Your task to perform on an android device: turn off notifications settings in the gmail app Image 0: 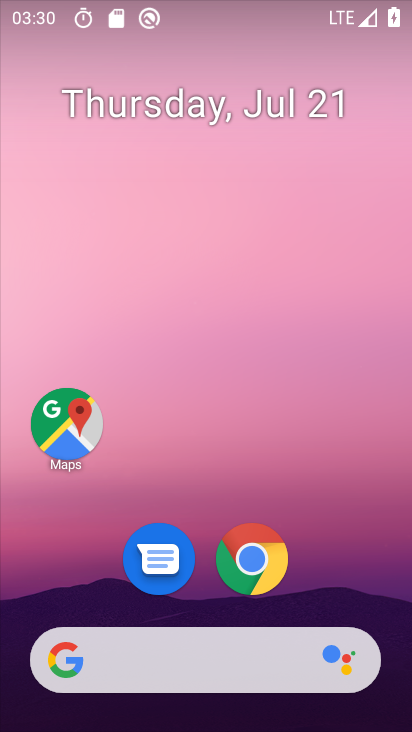
Step 0: drag from (344, 574) to (351, 56)
Your task to perform on an android device: turn off notifications settings in the gmail app Image 1: 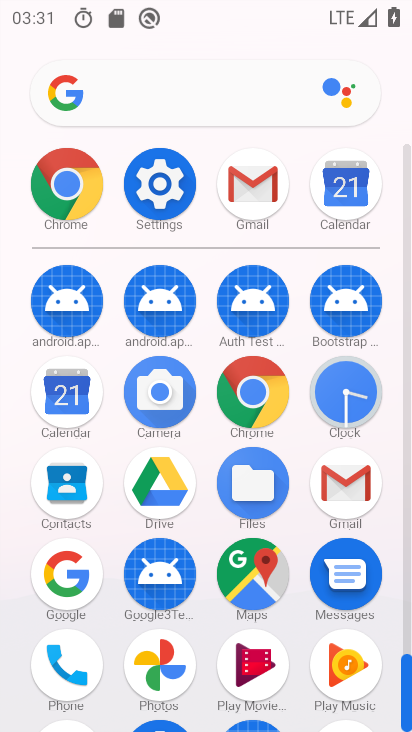
Step 1: click (343, 485)
Your task to perform on an android device: turn off notifications settings in the gmail app Image 2: 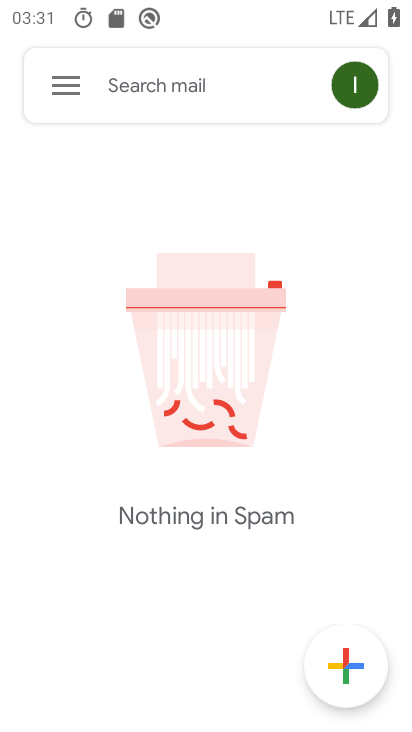
Step 2: click (68, 86)
Your task to perform on an android device: turn off notifications settings in the gmail app Image 3: 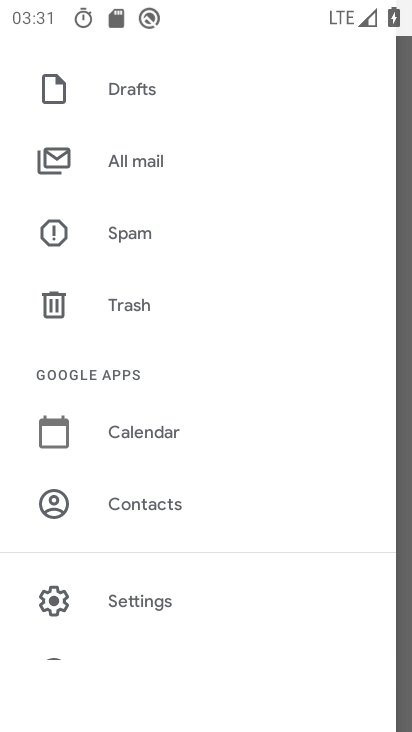
Step 3: drag from (296, 449) to (295, 375)
Your task to perform on an android device: turn off notifications settings in the gmail app Image 4: 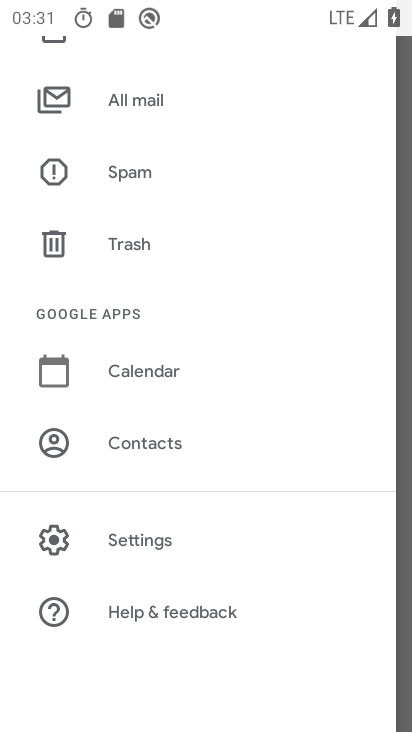
Step 4: drag from (310, 485) to (310, 405)
Your task to perform on an android device: turn off notifications settings in the gmail app Image 5: 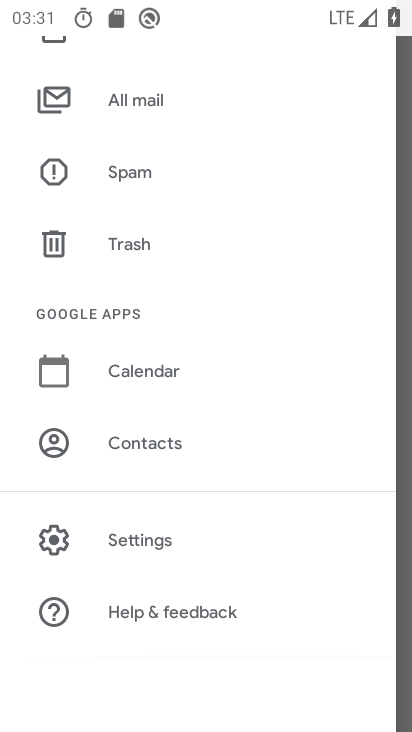
Step 5: click (255, 528)
Your task to perform on an android device: turn off notifications settings in the gmail app Image 6: 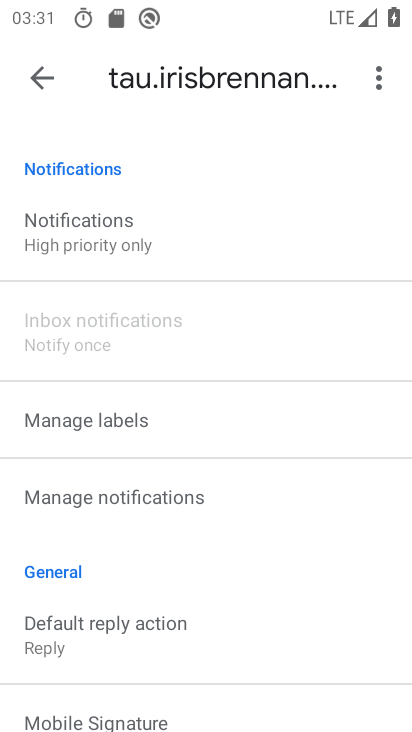
Step 6: drag from (335, 534) to (339, 425)
Your task to perform on an android device: turn off notifications settings in the gmail app Image 7: 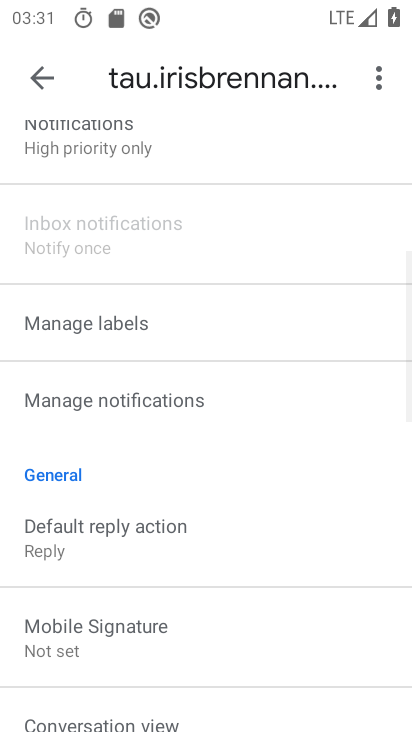
Step 7: drag from (320, 488) to (322, 414)
Your task to perform on an android device: turn off notifications settings in the gmail app Image 8: 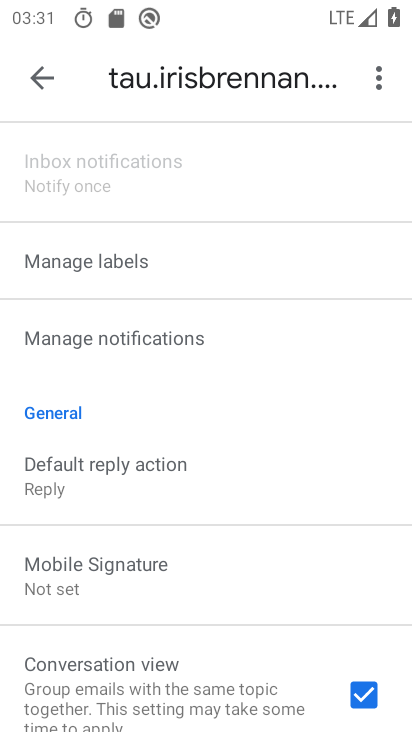
Step 8: drag from (312, 476) to (316, 410)
Your task to perform on an android device: turn off notifications settings in the gmail app Image 9: 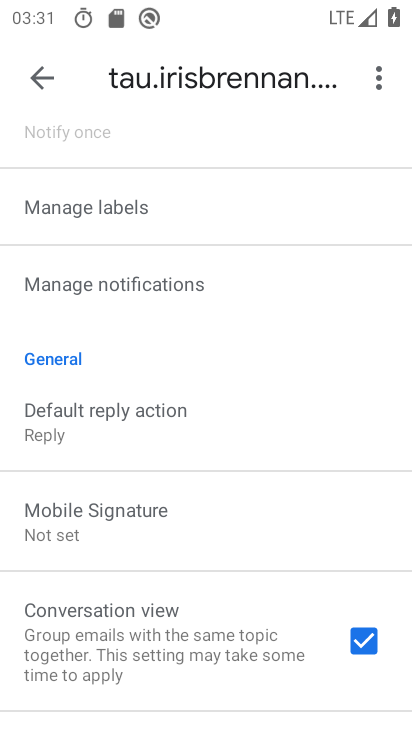
Step 9: drag from (310, 475) to (313, 371)
Your task to perform on an android device: turn off notifications settings in the gmail app Image 10: 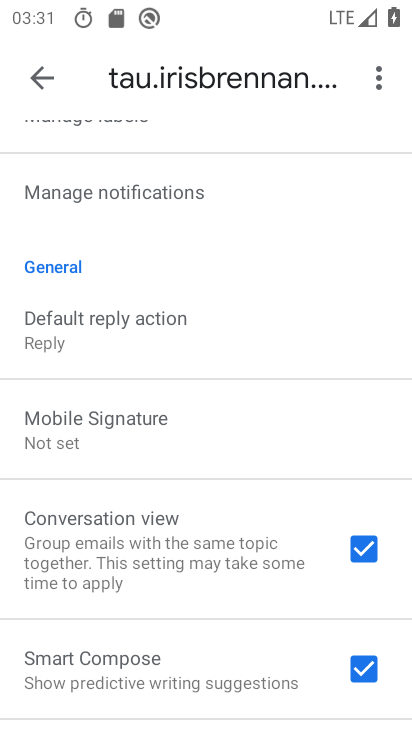
Step 10: drag from (301, 424) to (302, 364)
Your task to perform on an android device: turn off notifications settings in the gmail app Image 11: 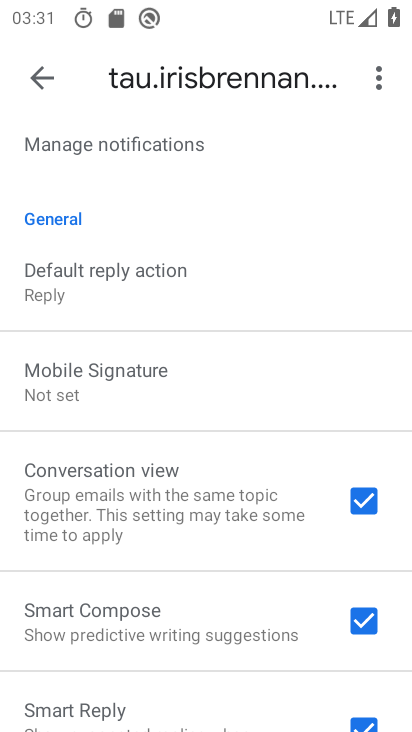
Step 11: drag from (290, 449) to (288, 360)
Your task to perform on an android device: turn off notifications settings in the gmail app Image 12: 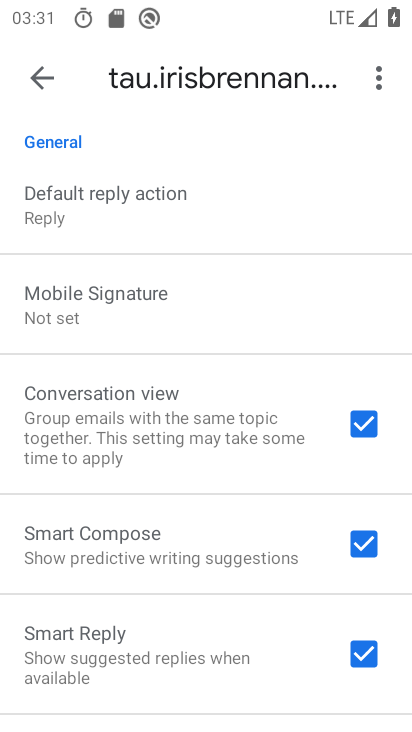
Step 12: drag from (270, 315) to (269, 391)
Your task to perform on an android device: turn off notifications settings in the gmail app Image 13: 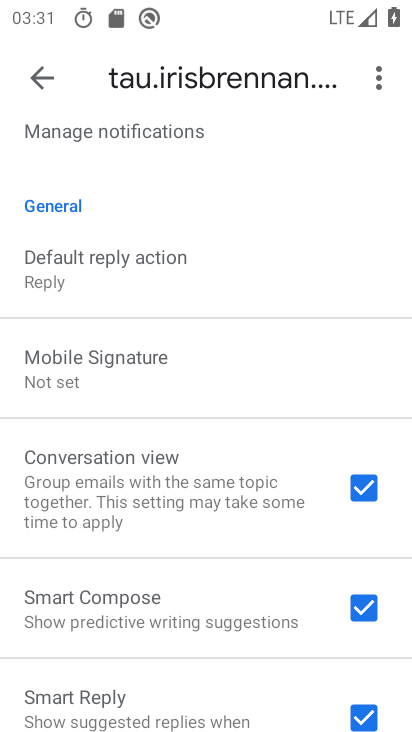
Step 13: drag from (273, 304) to (272, 392)
Your task to perform on an android device: turn off notifications settings in the gmail app Image 14: 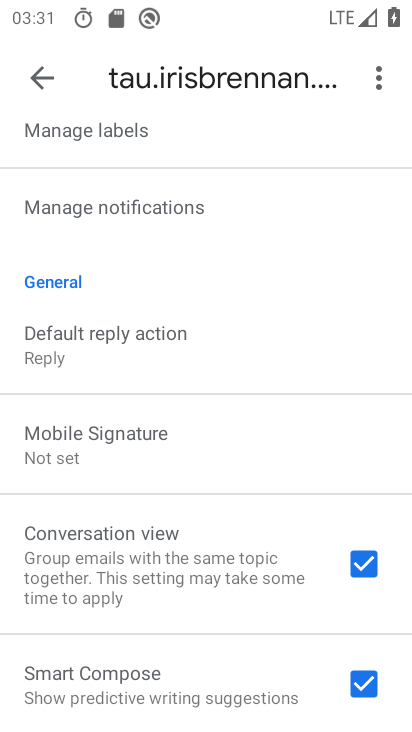
Step 14: drag from (272, 302) to (266, 378)
Your task to perform on an android device: turn off notifications settings in the gmail app Image 15: 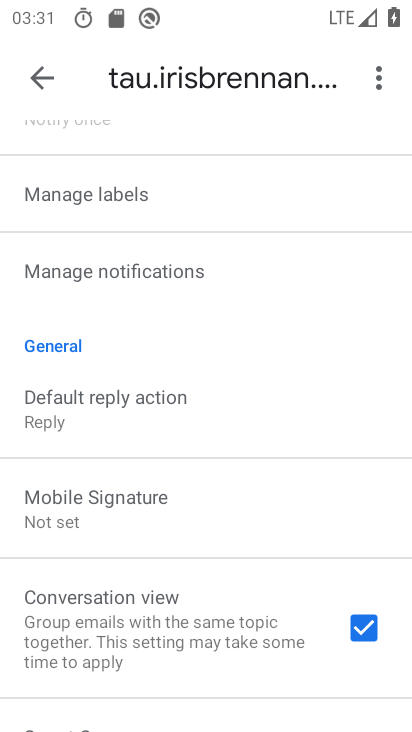
Step 15: drag from (268, 336) to (268, 412)
Your task to perform on an android device: turn off notifications settings in the gmail app Image 16: 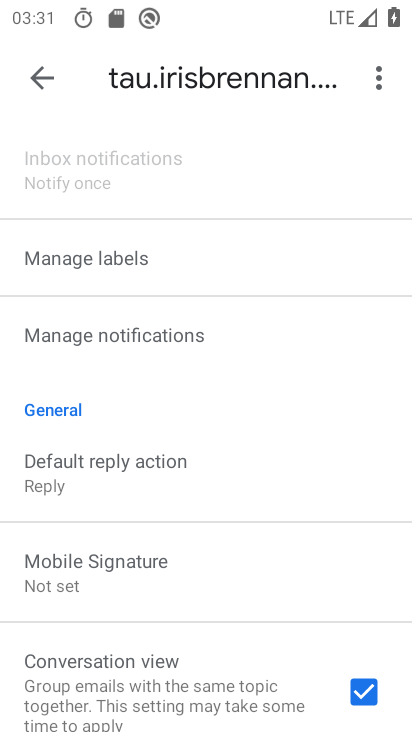
Step 16: click (266, 342)
Your task to perform on an android device: turn off notifications settings in the gmail app Image 17: 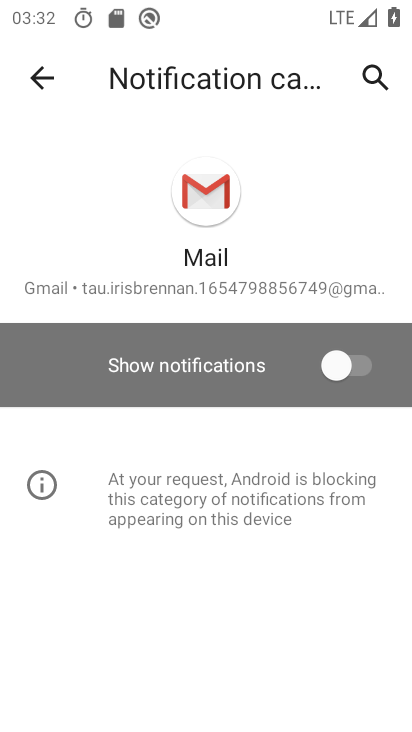
Step 17: task complete